Your task to perform on an android device: open device folders in google photos Image 0: 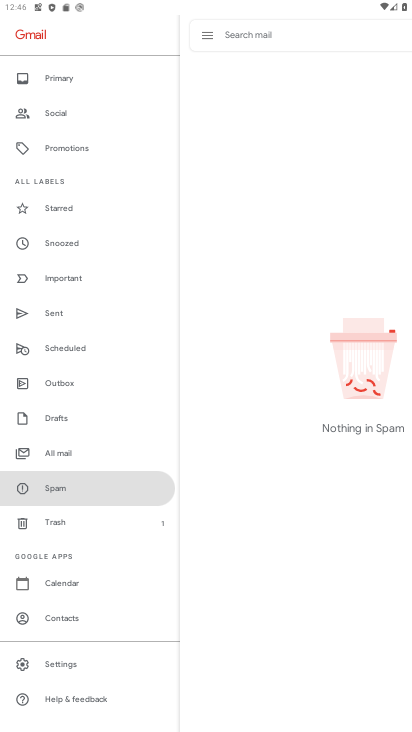
Step 0: press home button
Your task to perform on an android device: open device folders in google photos Image 1: 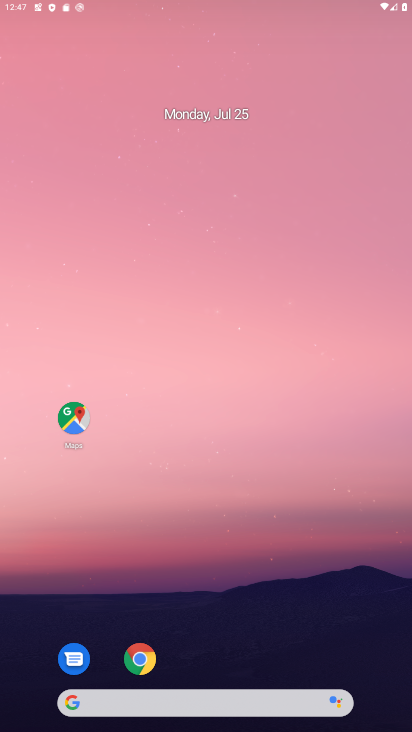
Step 1: drag from (211, 561) to (285, 11)
Your task to perform on an android device: open device folders in google photos Image 2: 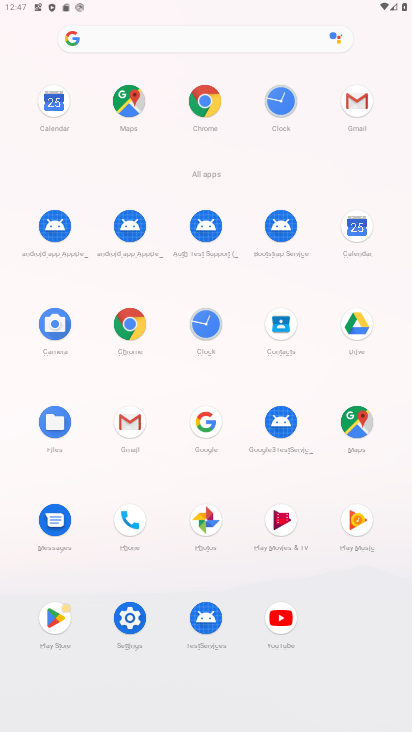
Step 2: click (213, 520)
Your task to perform on an android device: open device folders in google photos Image 3: 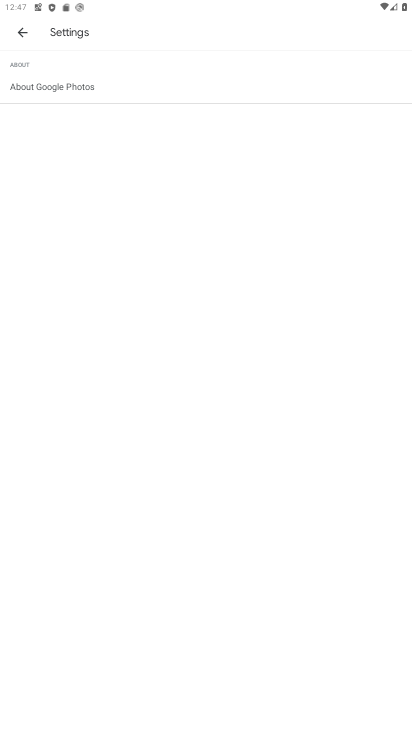
Step 3: click (22, 38)
Your task to perform on an android device: open device folders in google photos Image 4: 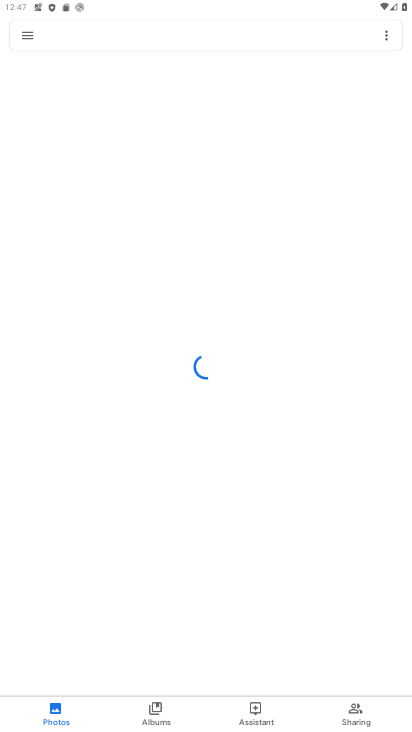
Step 4: click (25, 30)
Your task to perform on an android device: open device folders in google photos Image 5: 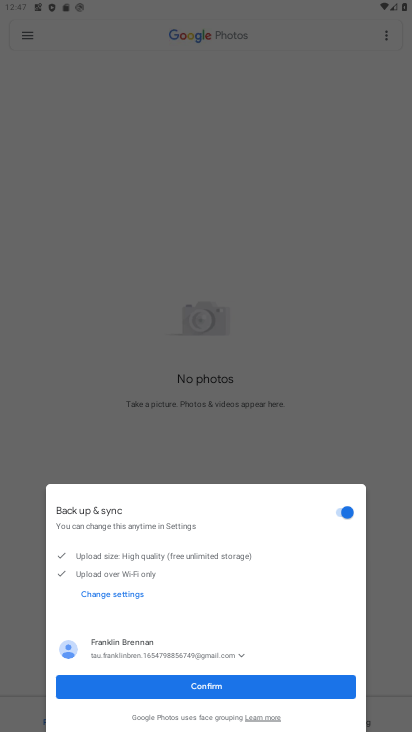
Step 5: click (252, 689)
Your task to perform on an android device: open device folders in google photos Image 6: 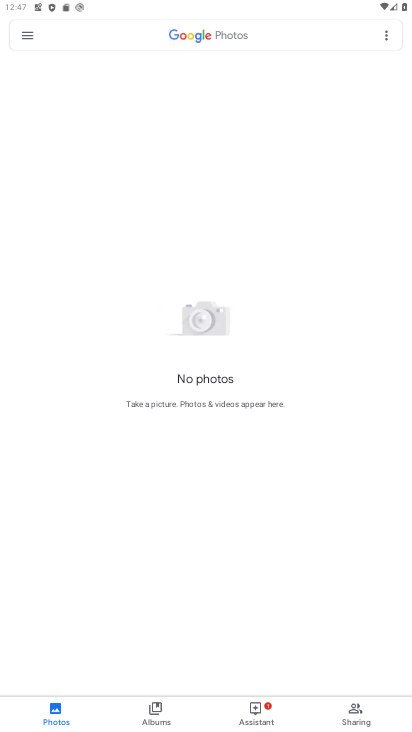
Step 6: click (35, 41)
Your task to perform on an android device: open device folders in google photos Image 7: 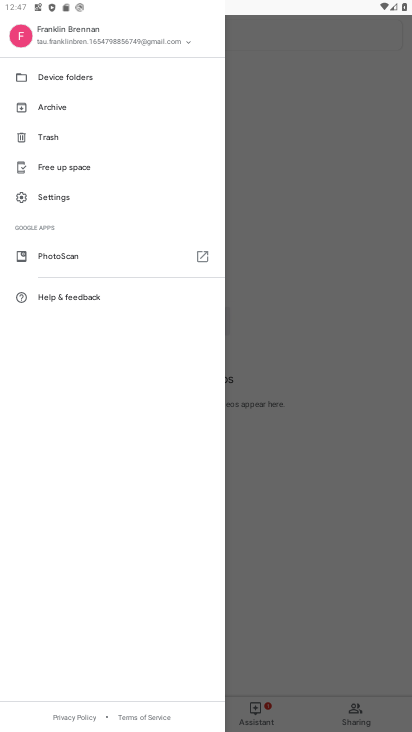
Step 7: click (49, 79)
Your task to perform on an android device: open device folders in google photos Image 8: 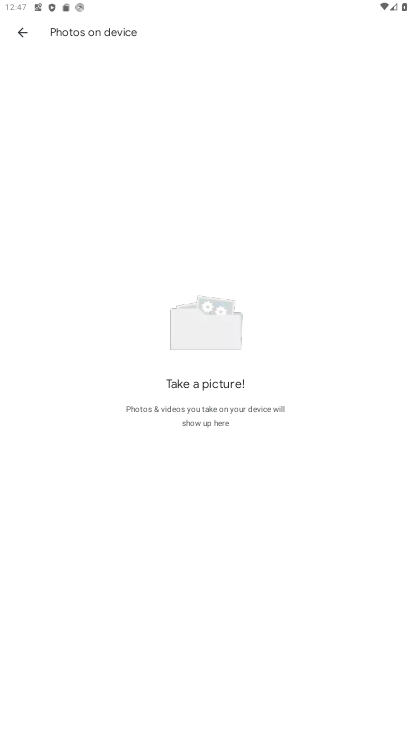
Step 8: task complete